Your task to perform on an android device: Open Chrome and go to settings Image 0: 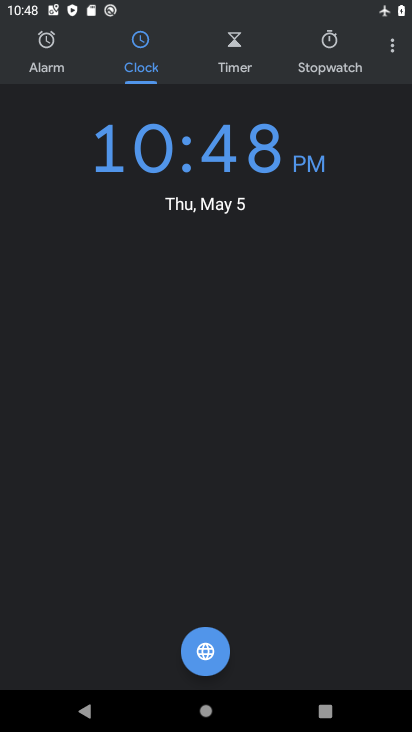
Step 0: press home button
Your task to perform on an android device: Open Chrome and go to settings Image 1: 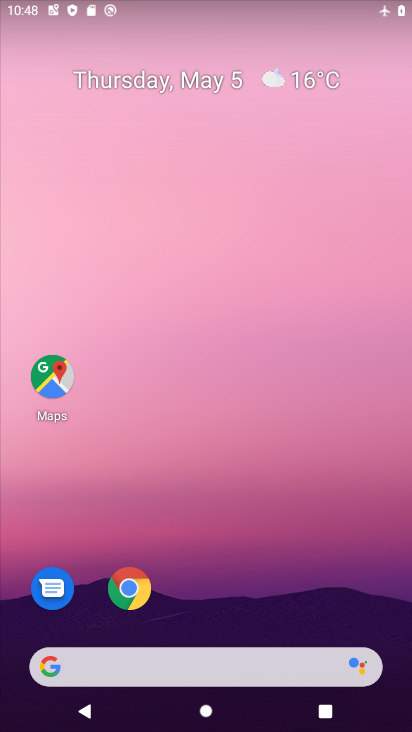
Step 1: drag from (241, 603) to (229, 153)
Your task to perform on an android device: Open Chrome and go to settings Image 2: 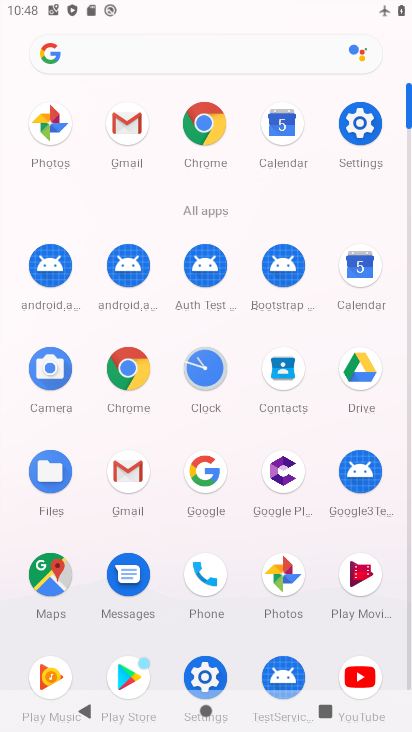
Step 2: click (209, 135)
Your task to perform on an android device: Open Chrome and go to settings Image 3: 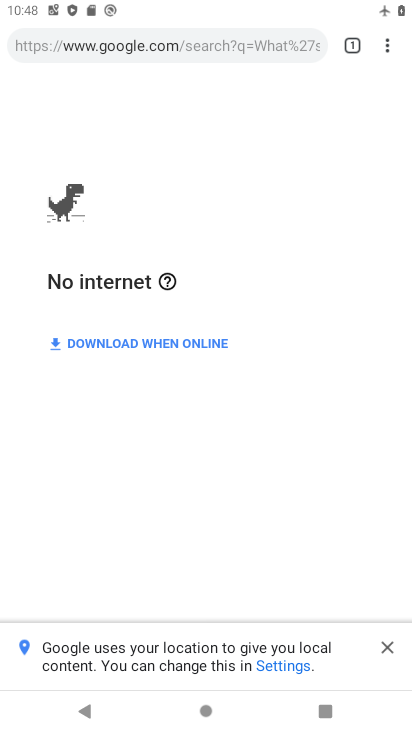
Step 3: task complete